Your task to perform on an android device: Empty the shopping cart on costco.com. Add "sony triple a" to the cart on costco.com, then select checkout. Image 0: 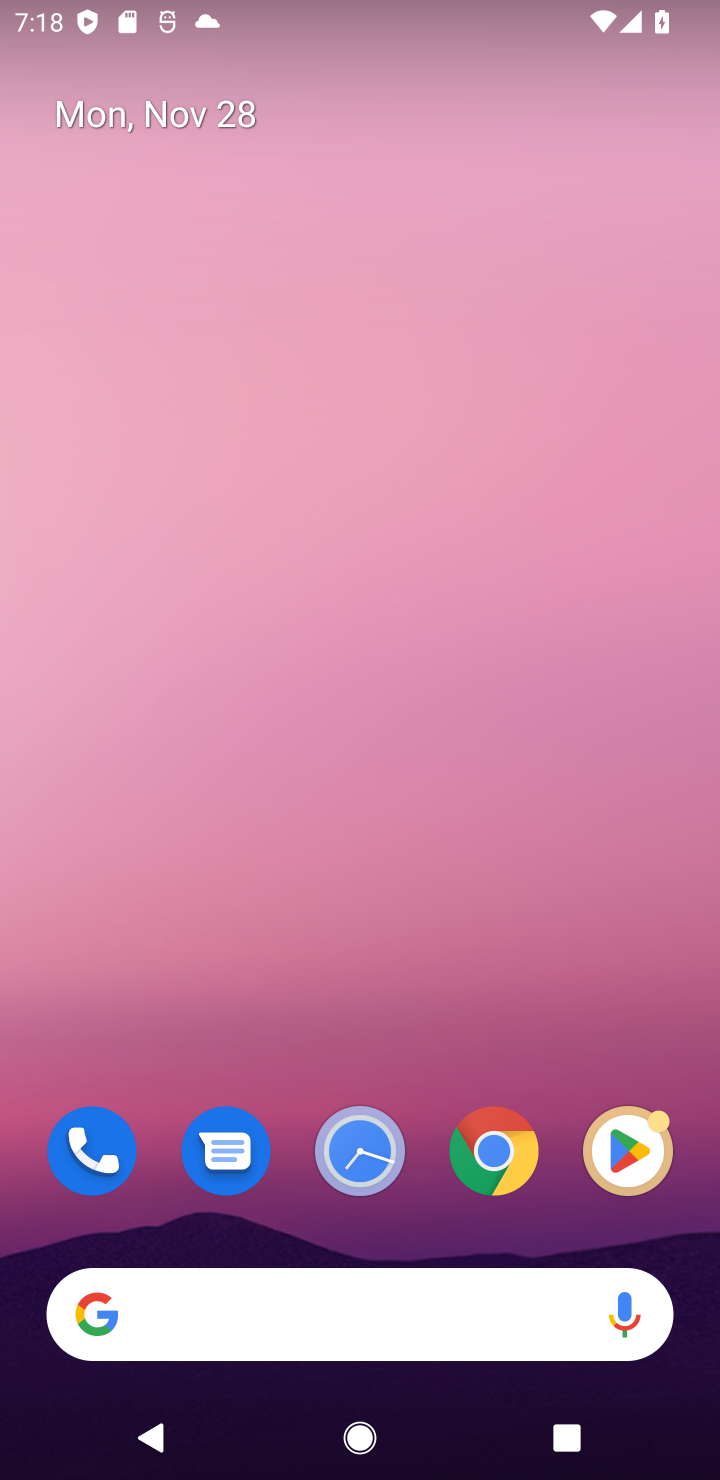
Step 0: click (450, 1315)
Your task to perform on an android device: Empty the shopping cart on costco.com. Add "sony triple a" to the cart on costco.com, then select checkout. Image 1: 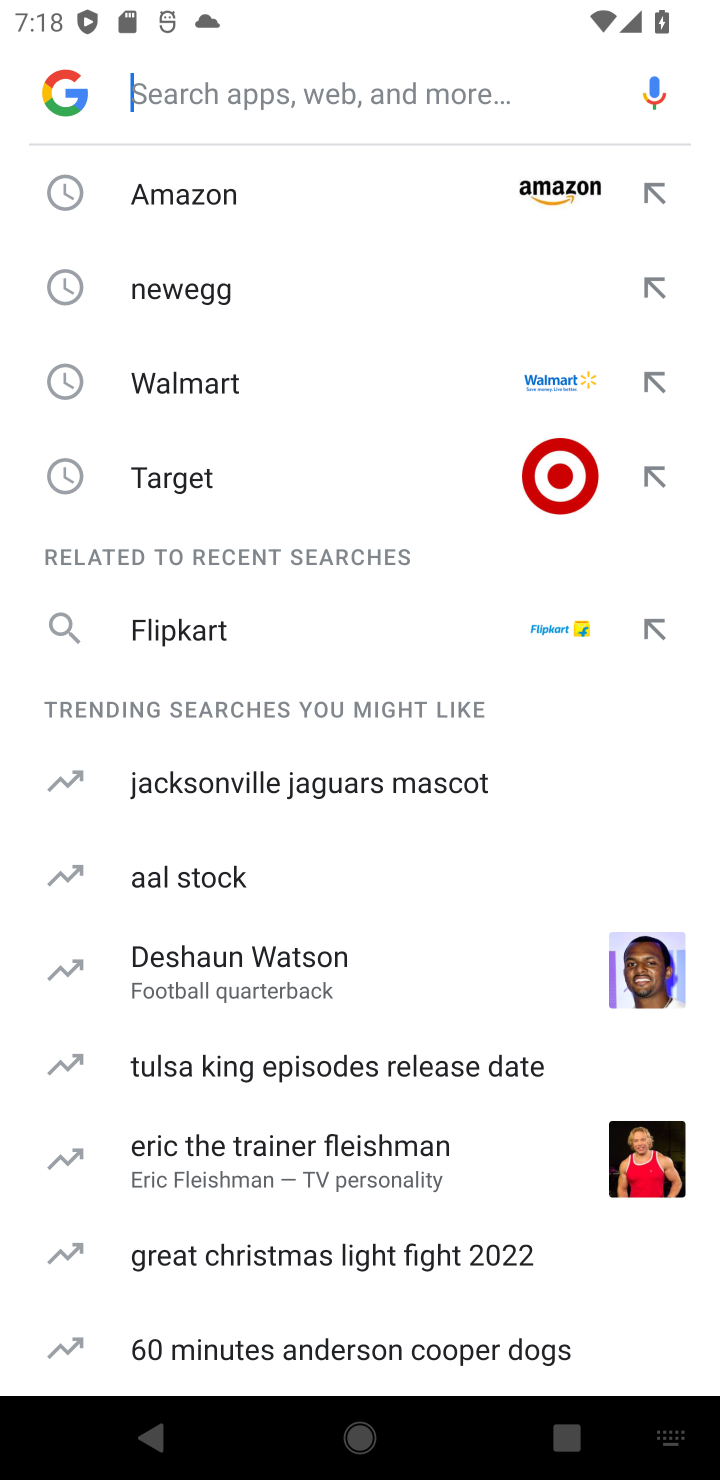
Step 1: type "costcoc.ocm"
Your task to perform on an android device: Empty the shopping cart on costco.com. Add "sony triple a" to the cart on costco.com, then select checkout. Image 2: 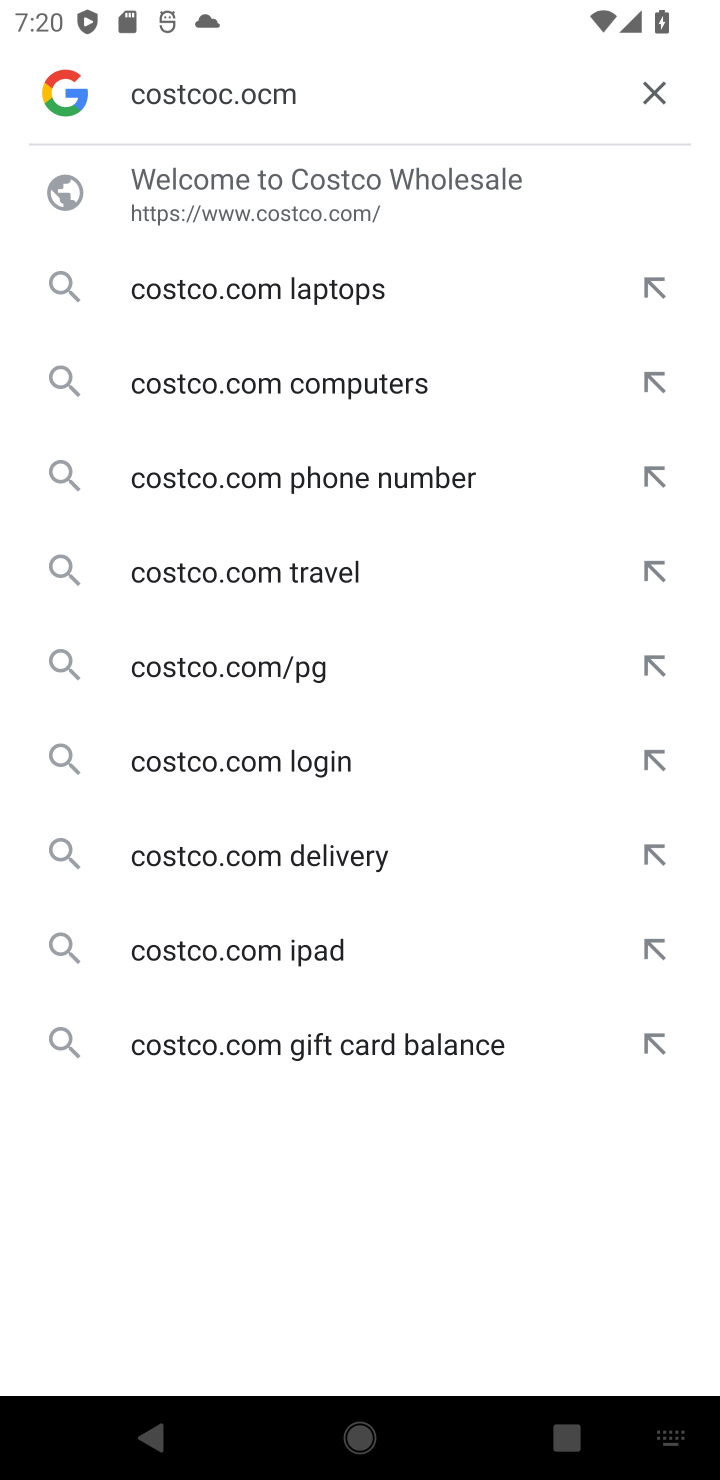
Step 2: click (291, 213)
Your task to perform on an android device: Empty the shopping cart on costco.com. Add "sony triple a" to the cart on costco.com, then select checkout. Image 3: 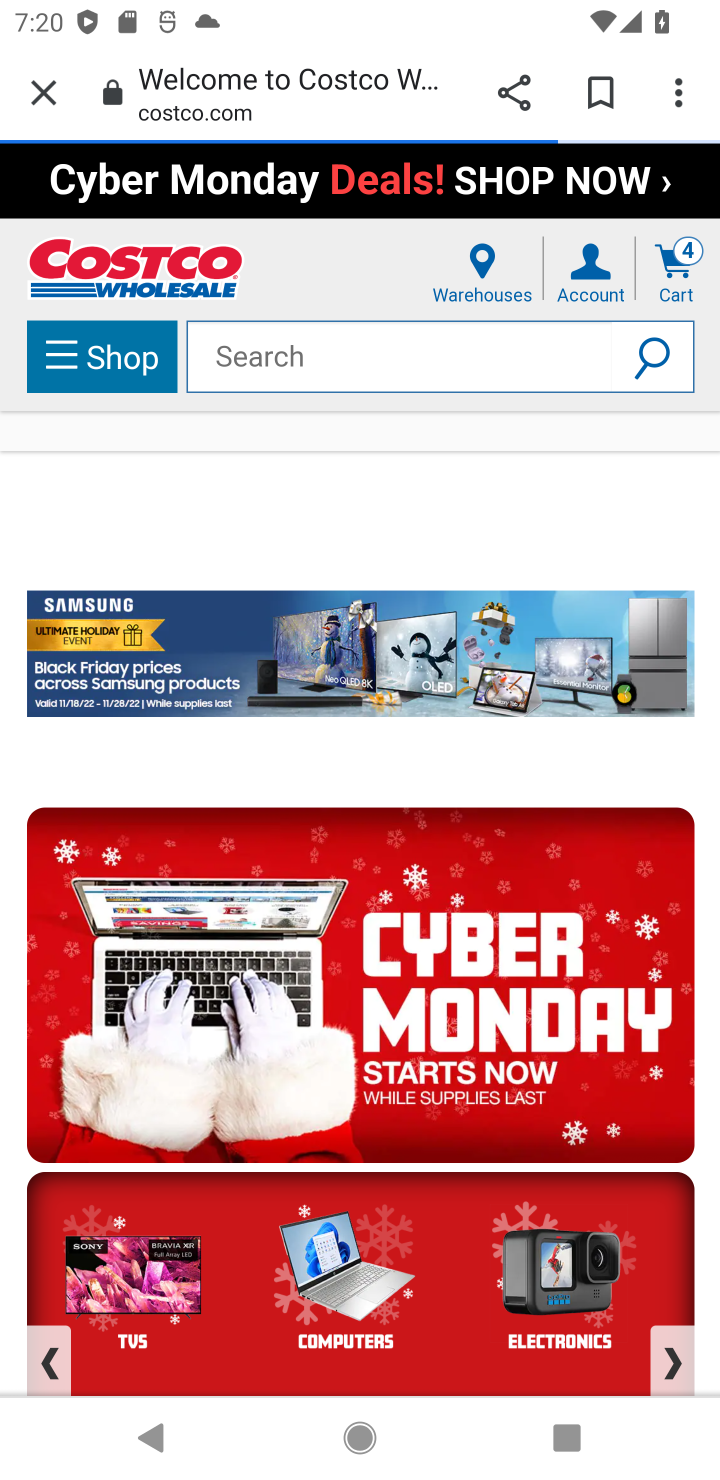
Step 3: click (455, 370)
Your task to perform on an android device: Empty the shopping cart on costco.com. Add "sony triple a" to the cart on costco.com, then select checkout. Image 4: 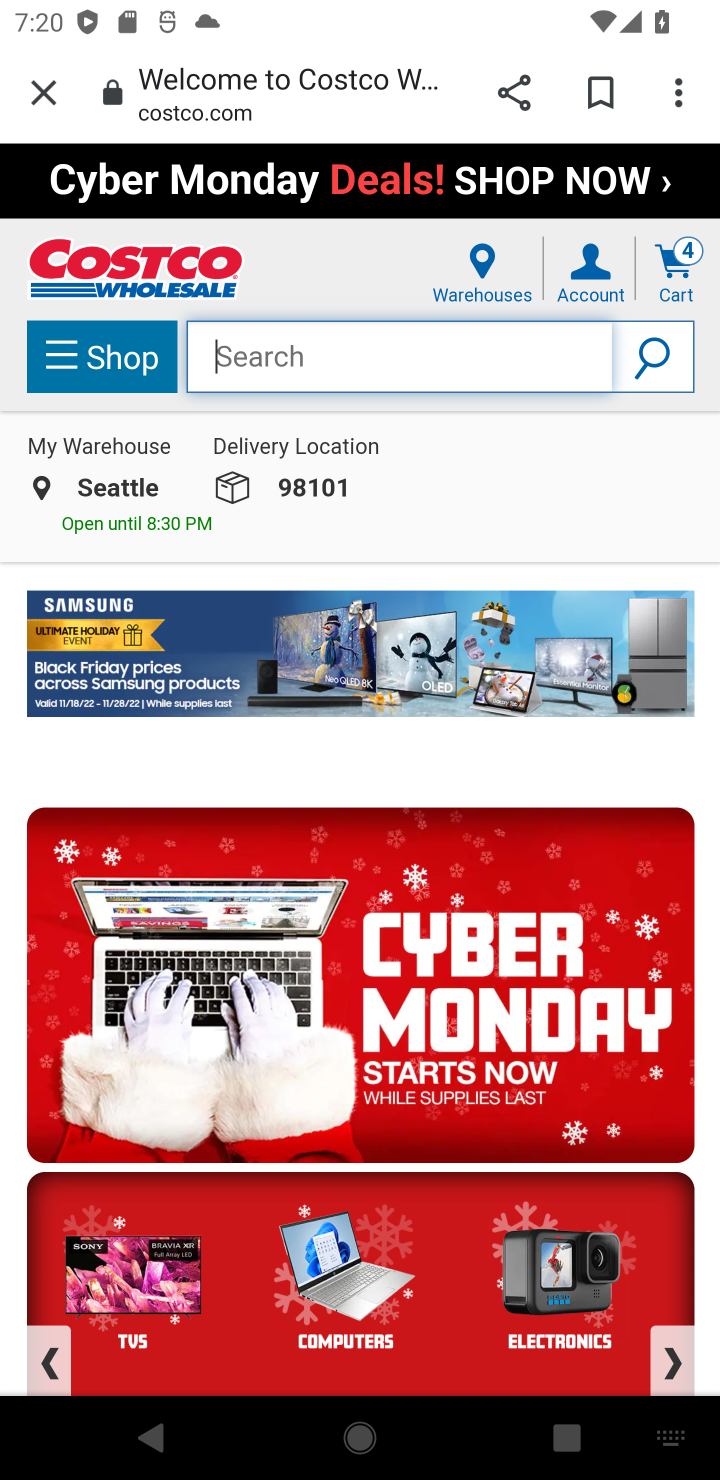
Step 4: type "sony triple a"
Your task to perform on an android device: Empty the shopping cart on costco.com. Add "sony triple a" to the cart on costco.com, then select checkout. Image 5: 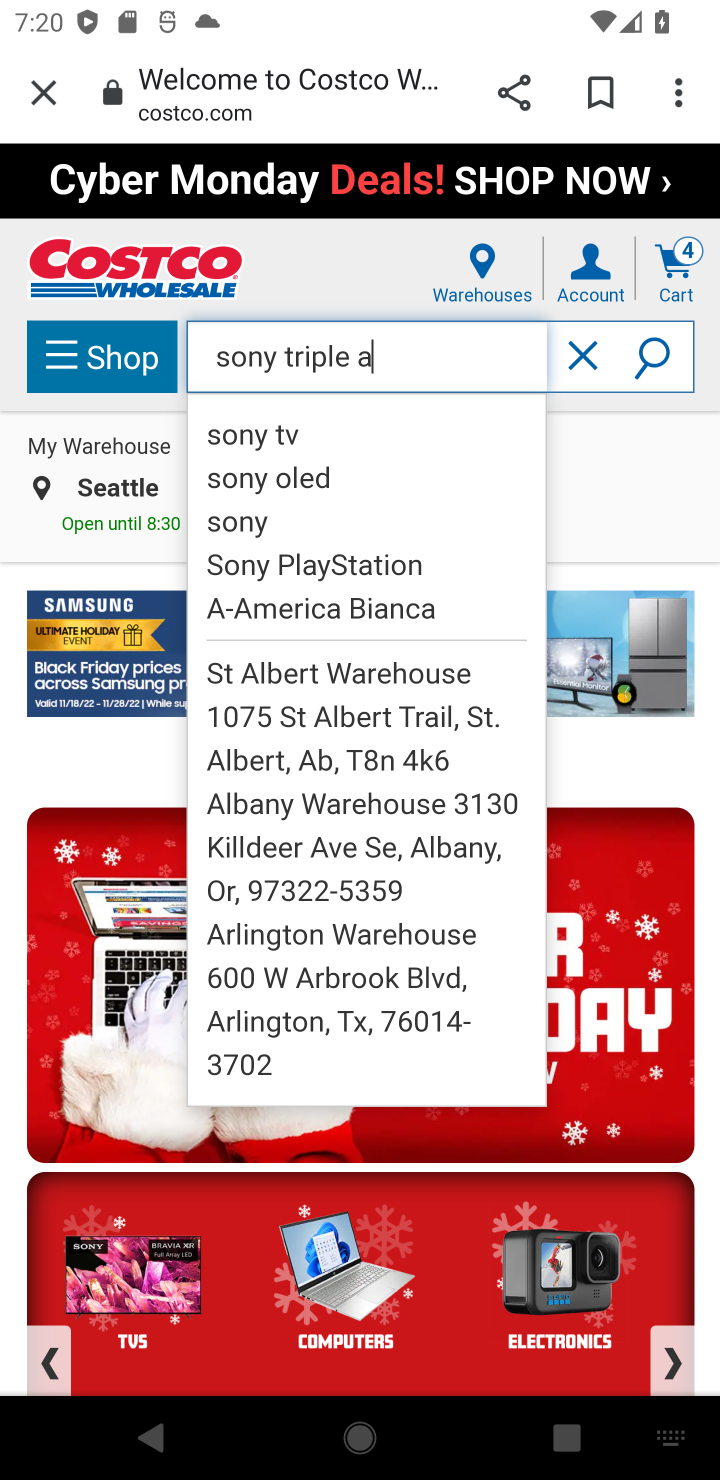
Step 5: click (681, 361)
Your task to perform on an android device: Empty the shopping cart on costco.com. Add "sony triple a" to the cart on costco.com, then select checkout. Image 6: 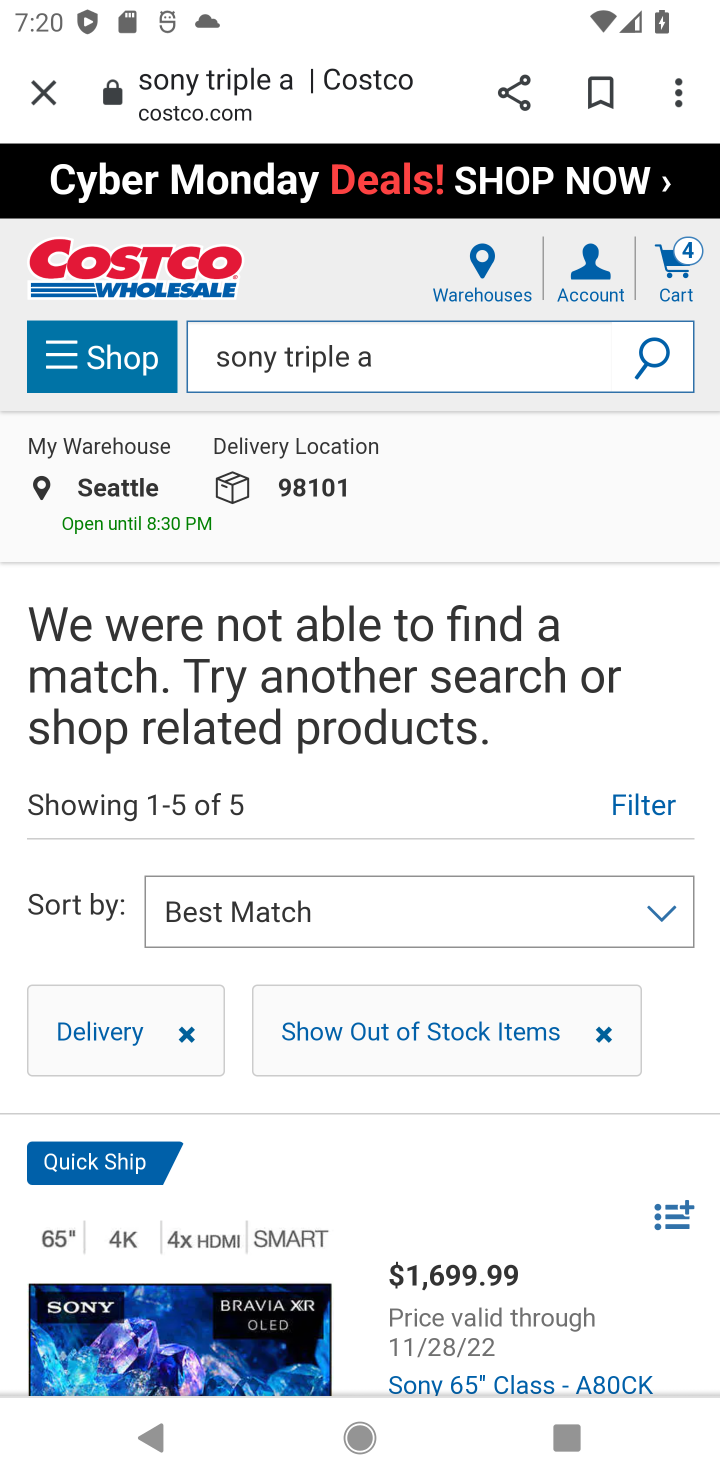
Step 6: click (277, 1350)
Your task to perform on an android device: Empty the shopping cart on costco.com. Add "sony triple a" to the cart on costco.com, then select checkout. Image 7: 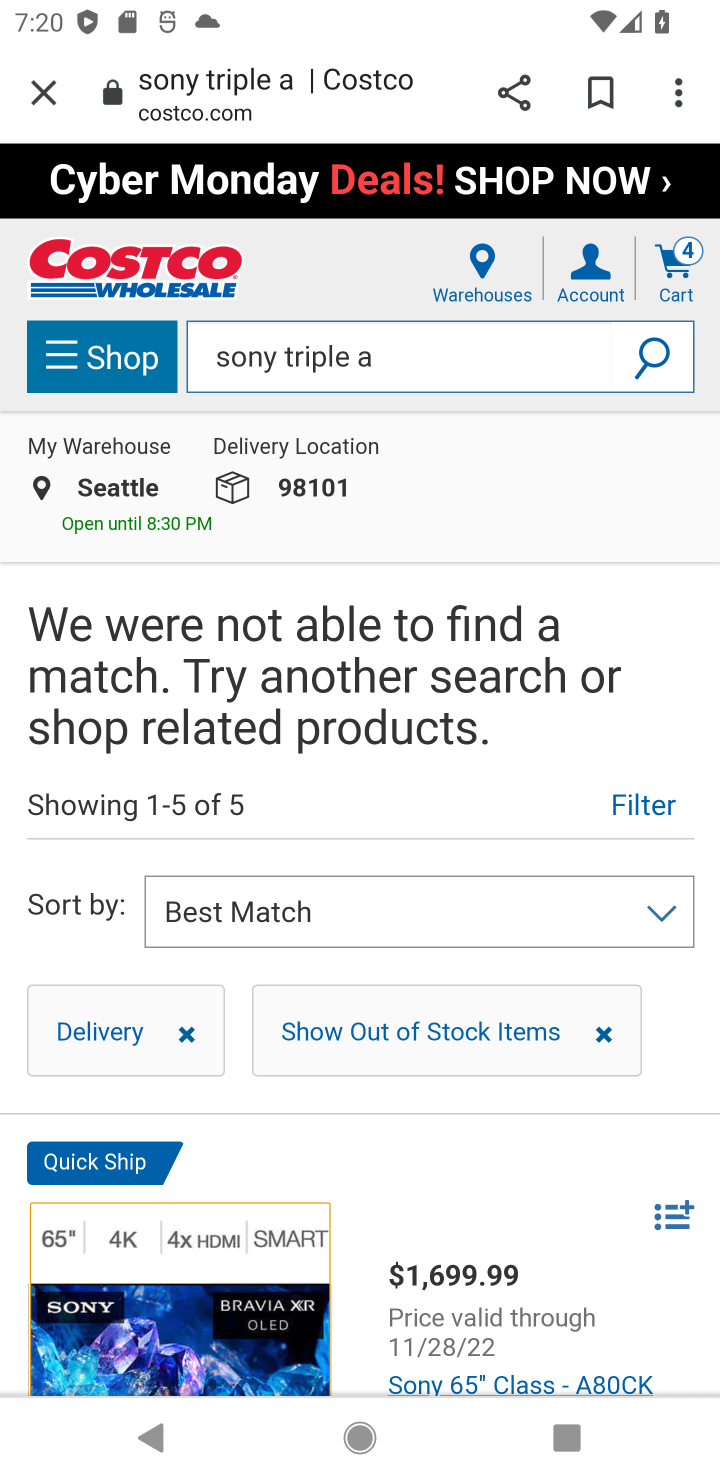
Step 7: task complete